Your task to perform on an android device: Show me recent news Image 0: 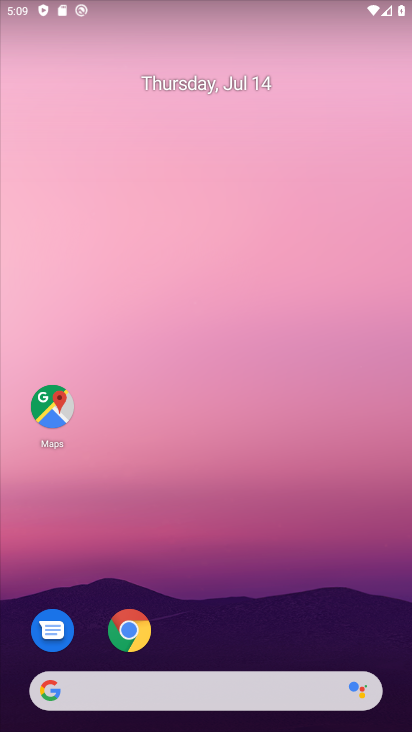
Step 0: press home button
Your task to perform on an android device: Show me recent news Image 1: 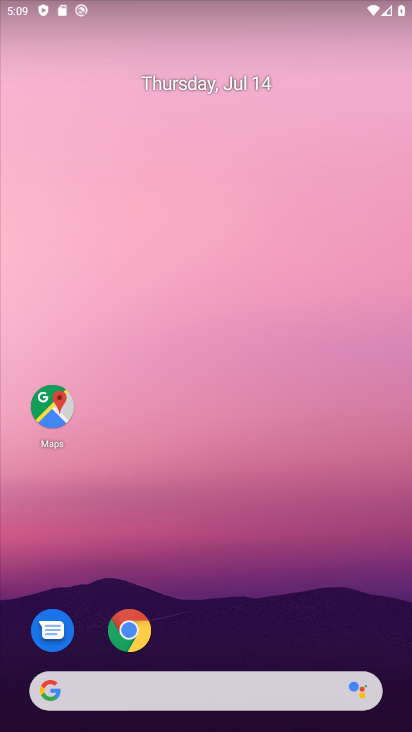
Step 1: click (44, 696)
Your task to perform on an android device: Show me recent news Image 2: 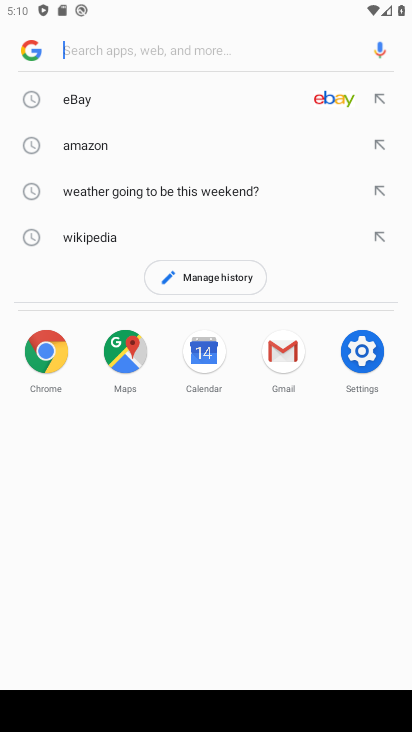
Step 2: type "recent news"
Your task to perform on an android device: Show me recent news Image 3: 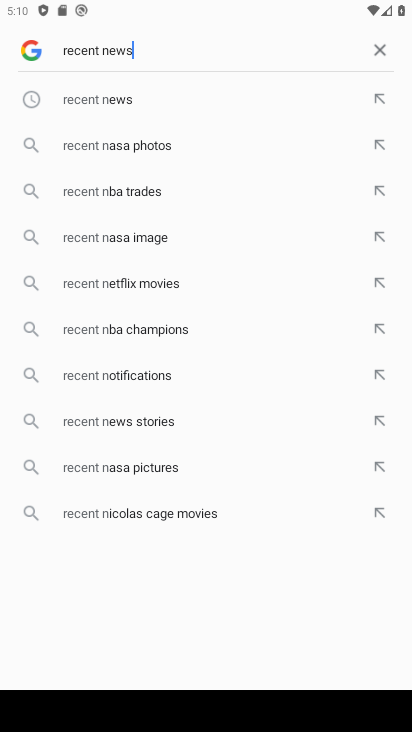
Step 3: press enter
Your task to perform on an android device: Show me recent news Image 4: 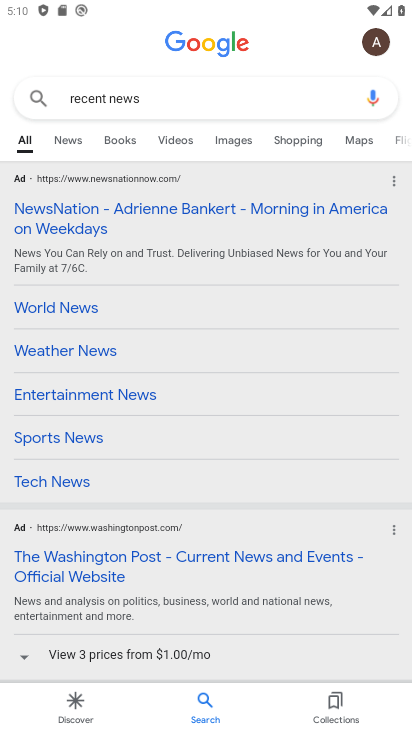
Step 4: task complete